Your task to perform on an android device: make emails show in primary in the gmail app Image 0: 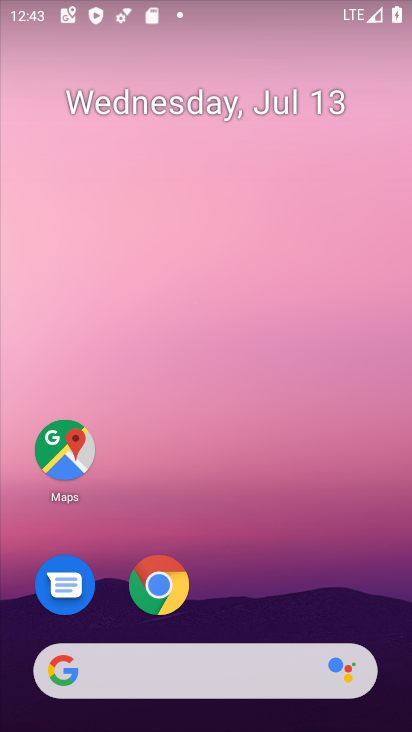
Step 0: drag from (230, 291) to (222, 198)
Your task to perform on an android device: make emails show in primary in the gmail app Image 1: 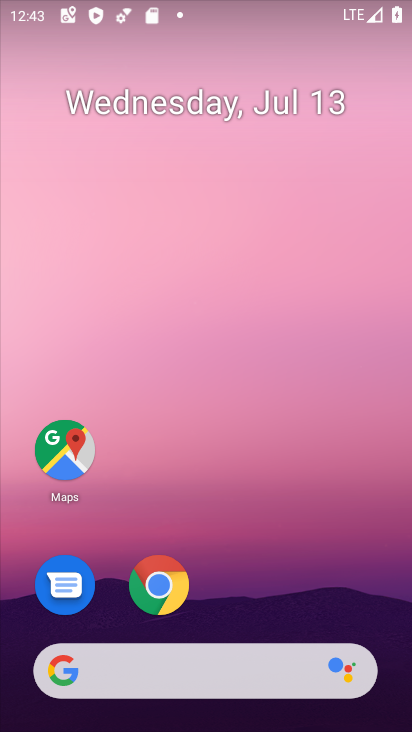
Step 1: drag from (242, 509) to (242, 86)
Your task to perform on an android device: make emails show in primary in the gmail app Image 2: 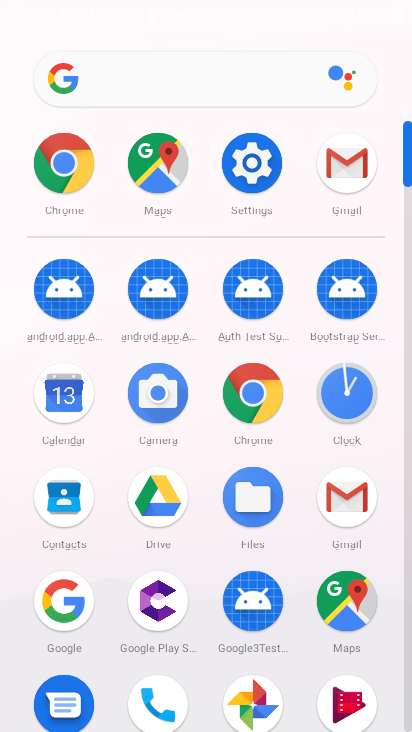
Step 2: click (351, 181)
Your task to perform on an android device: make emails show in primary in the gmail app Image 3: 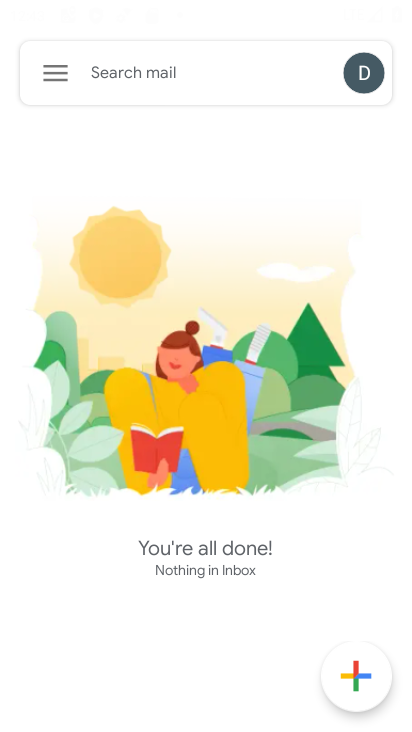
Step 3: click (58, 73)
Your task to perform on an android device: make emails show in primary in the gmail app Image 4: 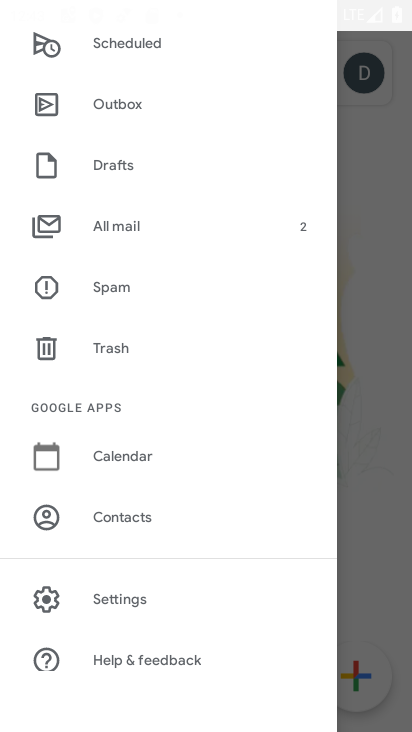
Step 4: click (111, 598)
Your task to perform on an android device: make emails show in primary in the gmail app Image 5: 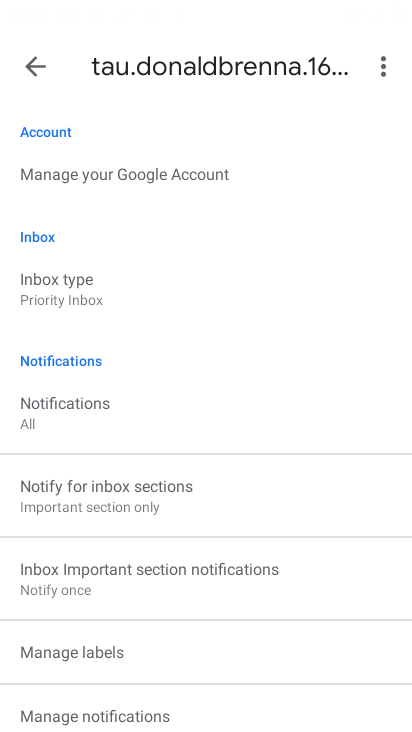
Step 5: task complete